Your task to perform on an android device: Is it going to rain today? Image 0: 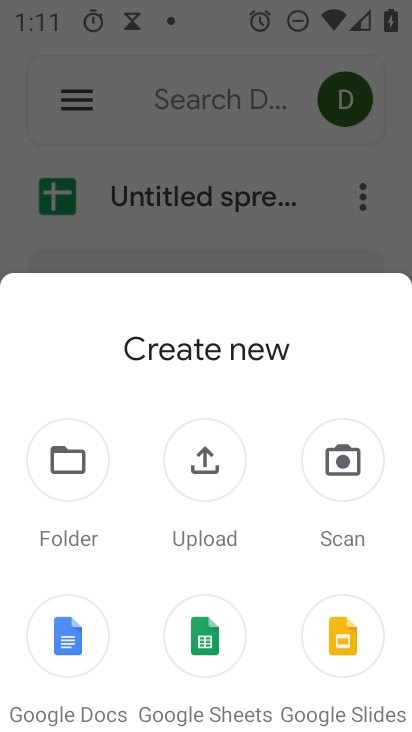
Step 0: press home button
Your task to perform on an android device: Is it going to rain today? Image 1: 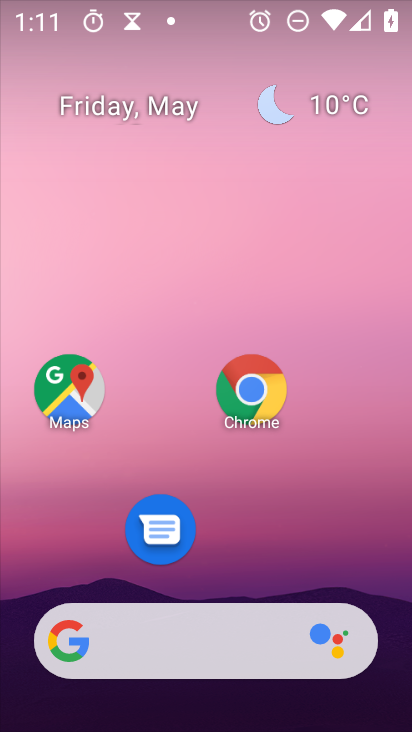
Step 1: click (317, 109)
Your task to perform on an android device: Is it going to rain today? Image 2: 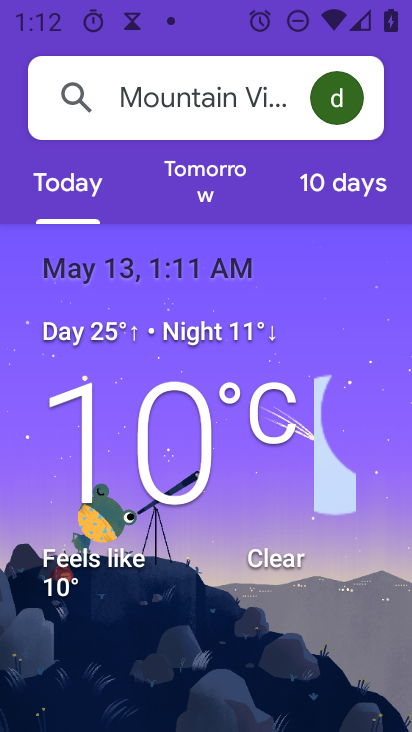
Step 2: task complete